Your task to perform on an android device: Clear all items from cart on costco. Search for "acer predator" on costco, select the first entry, and add it to the cart. Image 0: 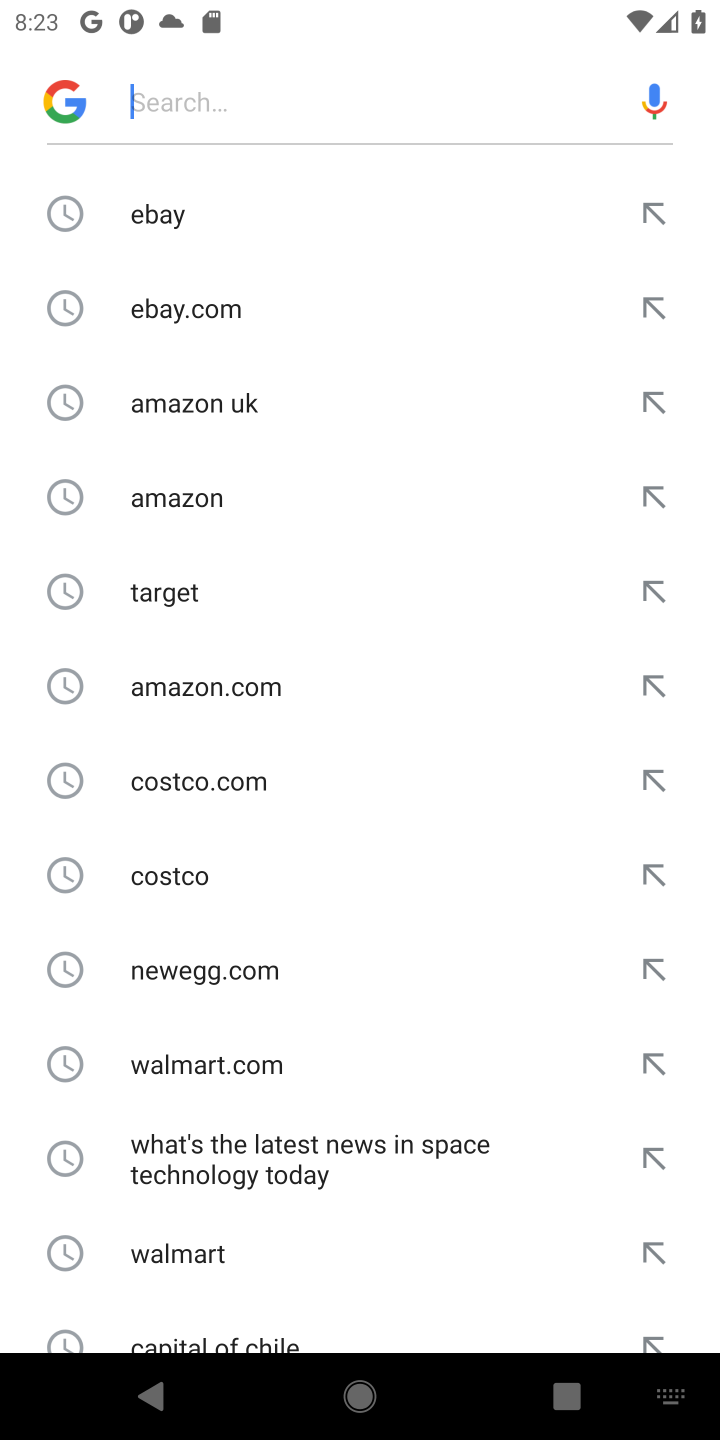
Step 0: type "costco.com"
Your task to perform on an android device: Clear all items from cart on costco. Search for "acer predator" on costco, select the first entry, and add it to the cart. Image 1: 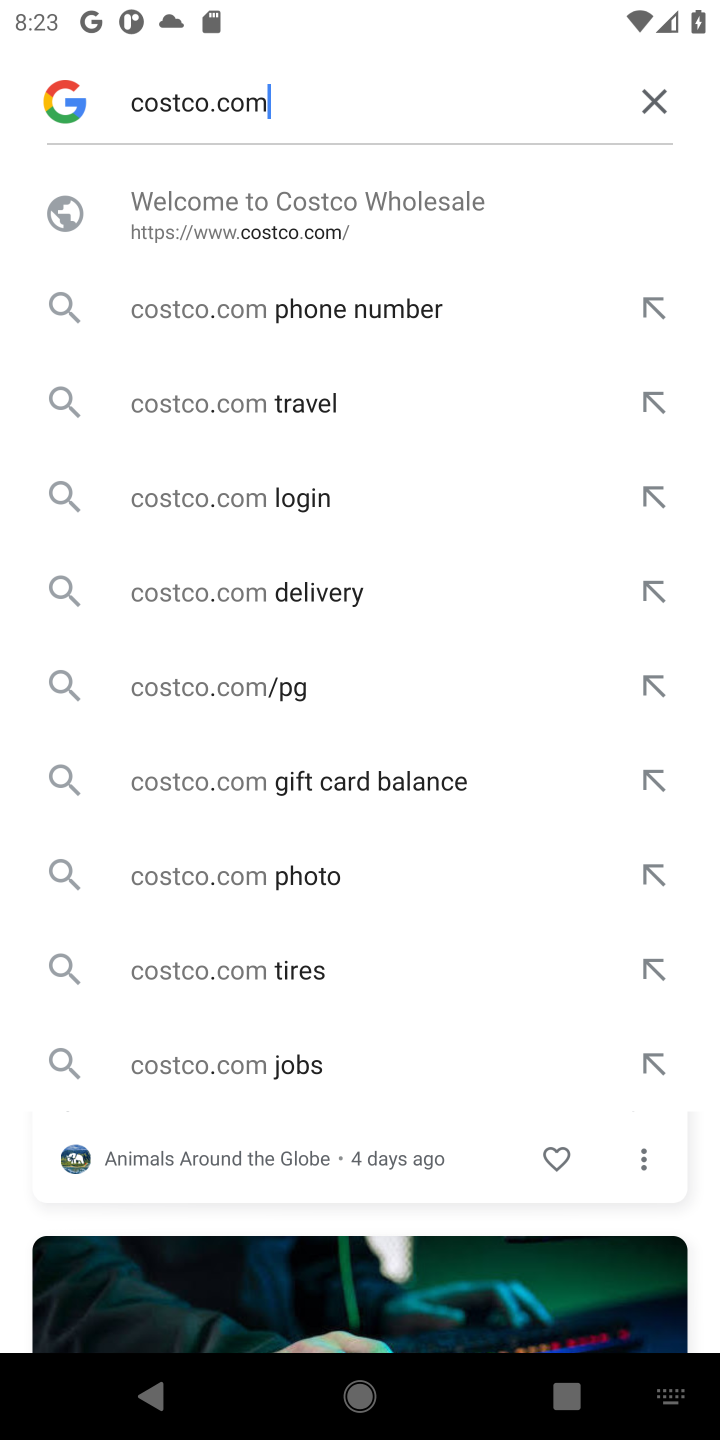
Step 1: click (243, 245)
Your task to perform on an android device: Clear all items from cart on costco. Search for "acer predator" on costco, select the first entry, and add it to the cart. Image 2: 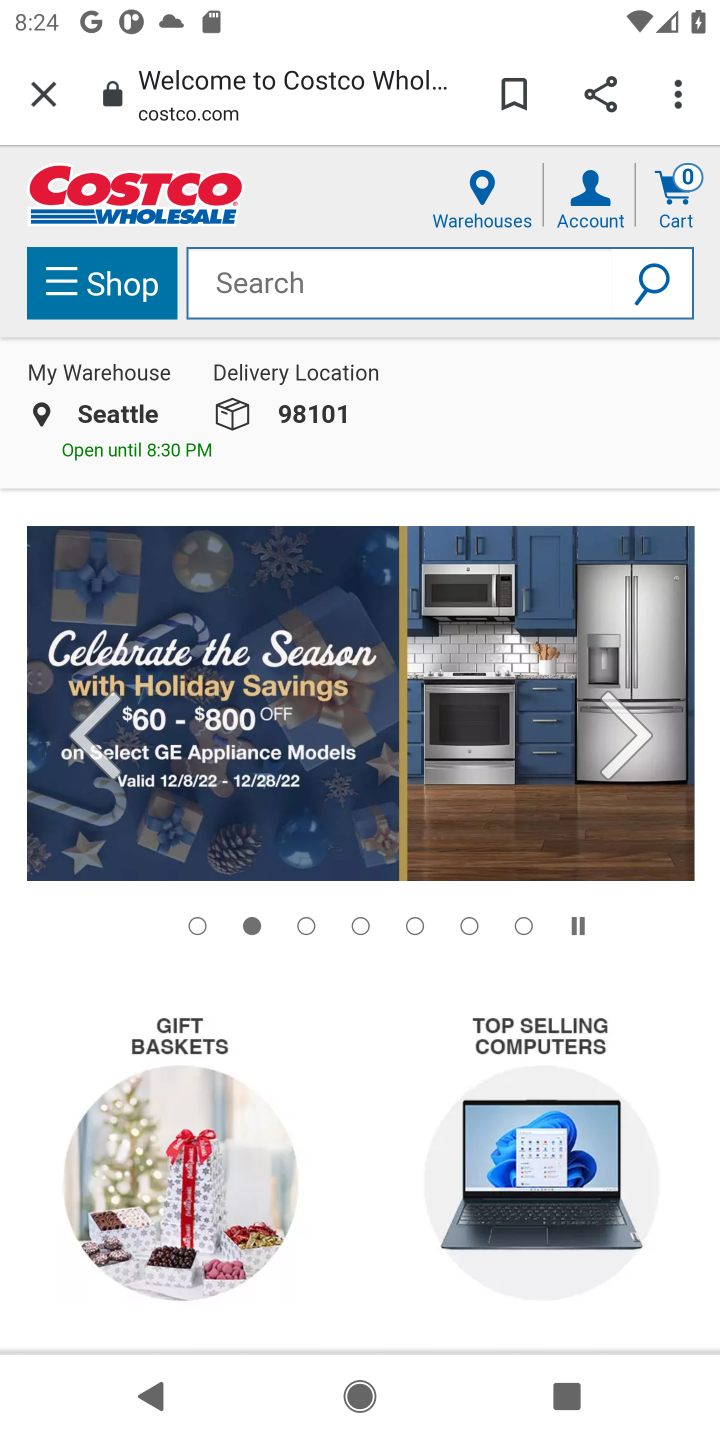
Step 2: click (662, 204)
Your task to perform on an android device: Clear all items from cart on costco. Search for "acer predator" on costco, select the first entry, and add it to the cart. Image 3: 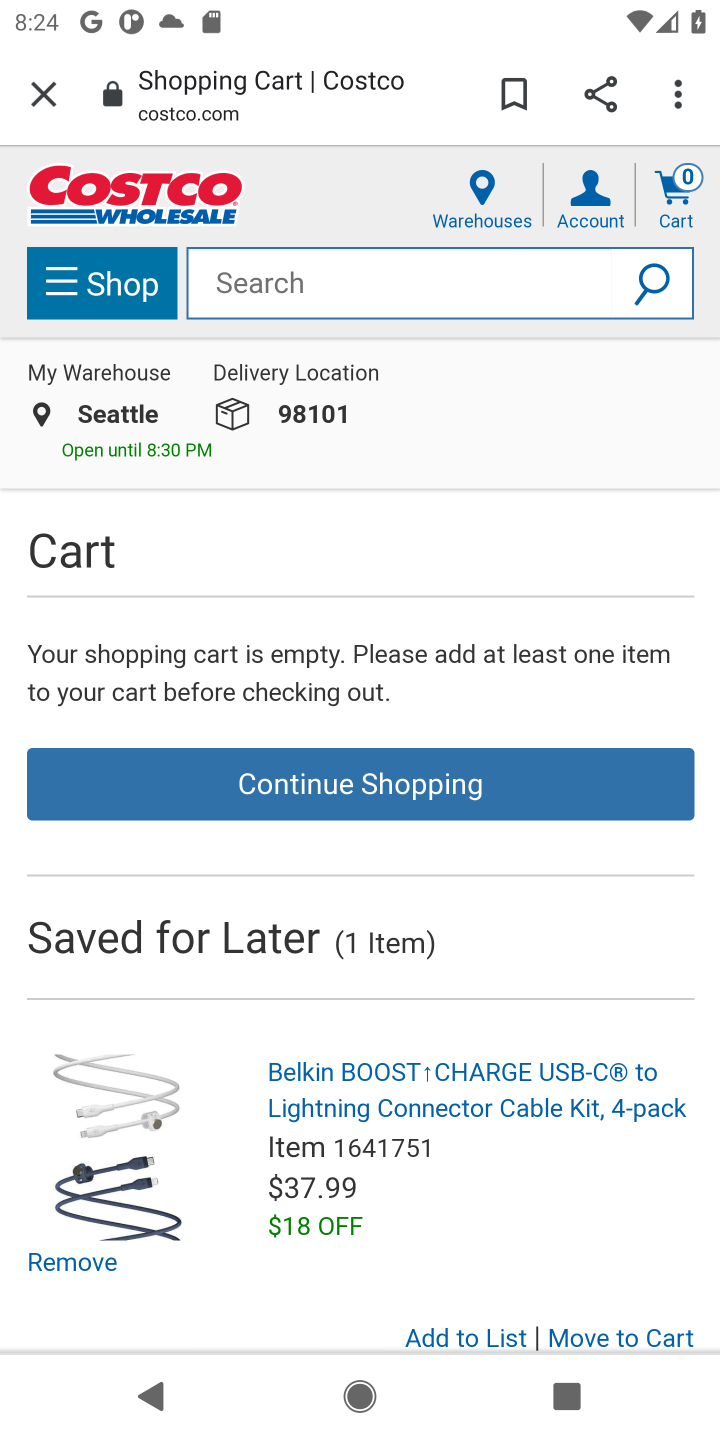
Step 3: click (271, 291)
Your task to perform on an android device: Clear all items from cart on costco. Search for "acer predator" on costco, select the first entry, and add it to the cart. Image 4: 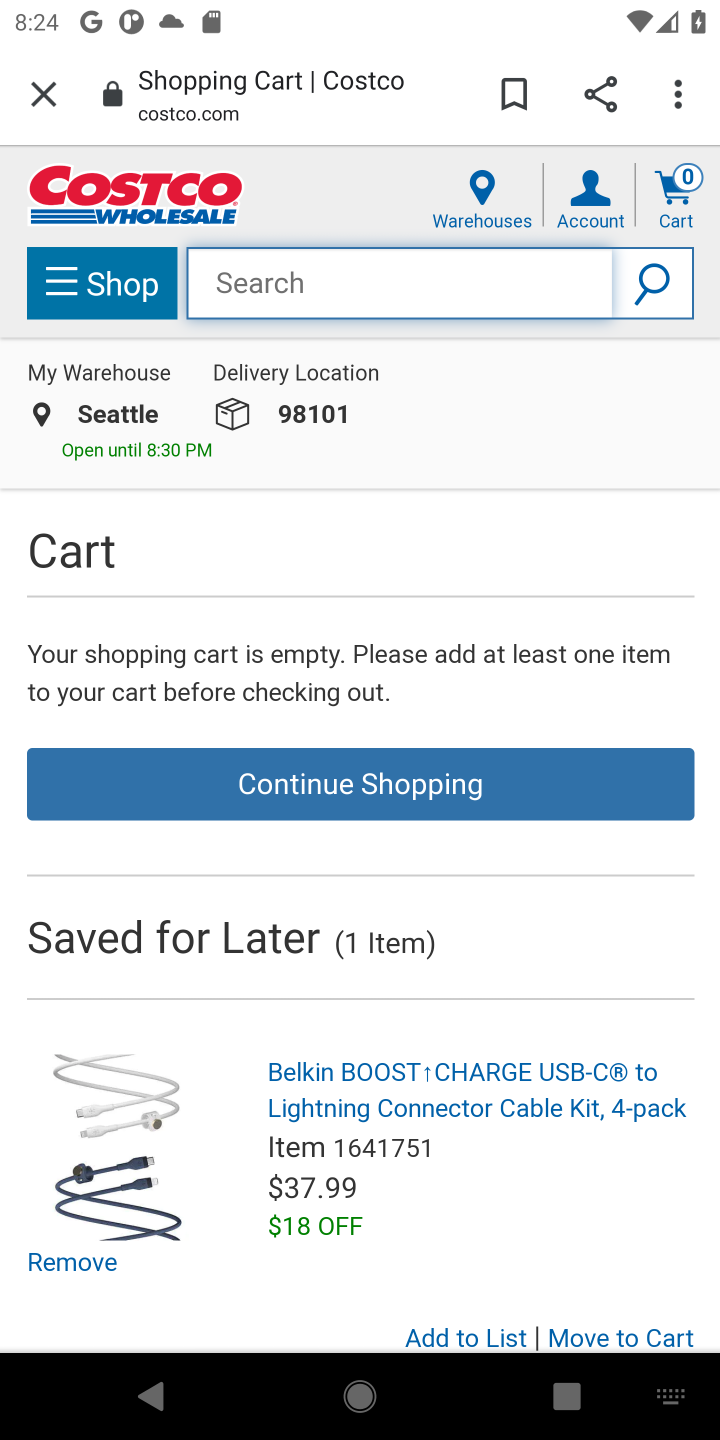
Step 4: type "acer predator"
Your task to perform on an android device: Clear all items from cart on costco. Search for "acer predator" on costco, select the first entry, and add it to the cart. Image 5: 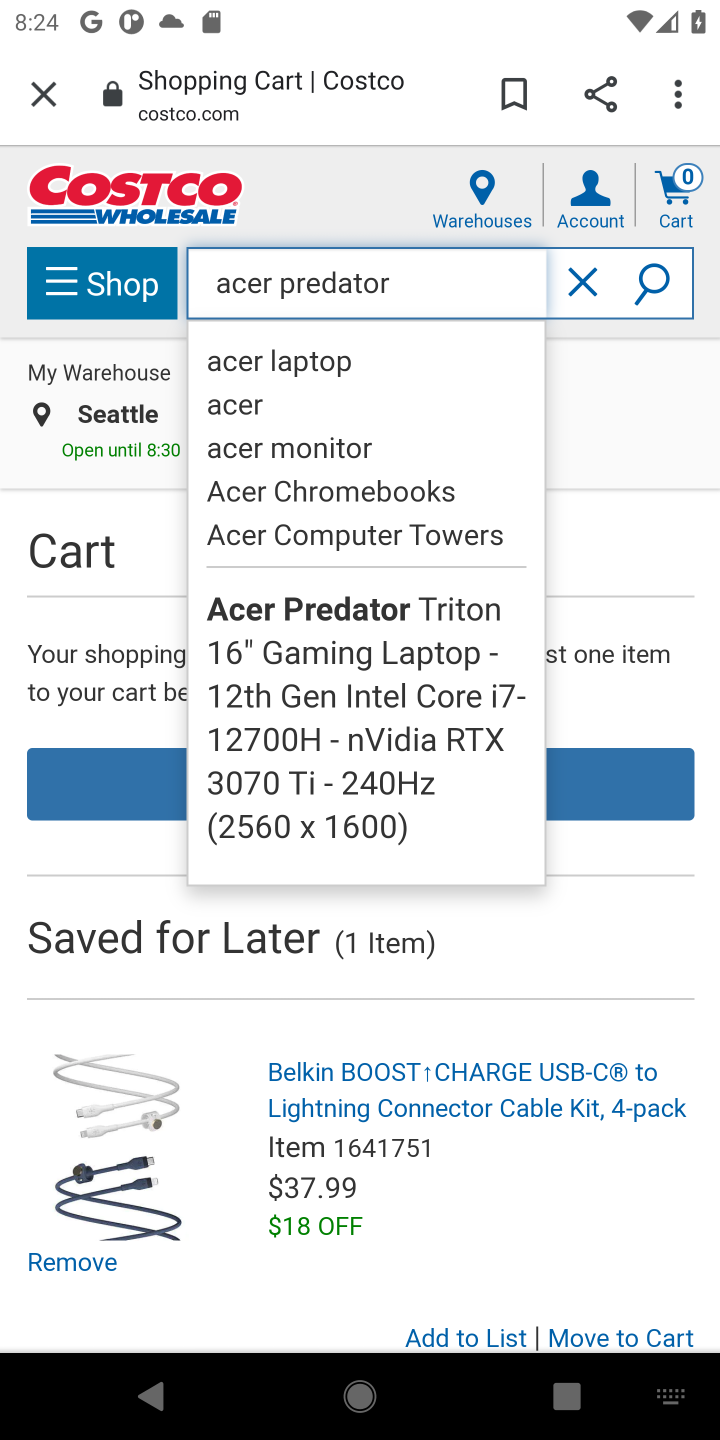
Step 5: click (661, 283)
Your task to perform on an android device: Clear all items from cart on costco. Search for "acer predator" on costco, select the first entry, and add it to the cart. Image 6: 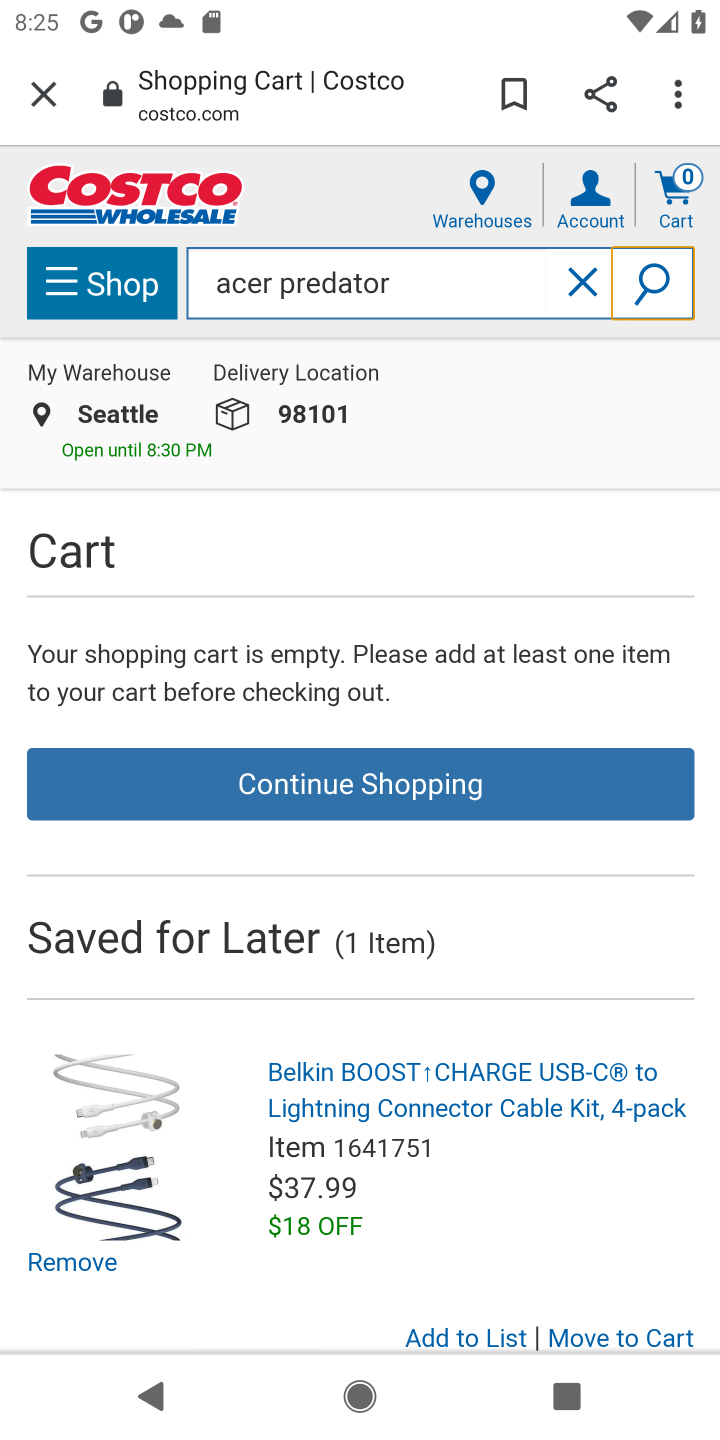
Step 6: drag from (466, 962) to (528, 581)
Your task to perform on an android device: Clear all items from cart on costco. Search for "acer predator" on costco, select the first entry, and add it to the cart. Image 7: 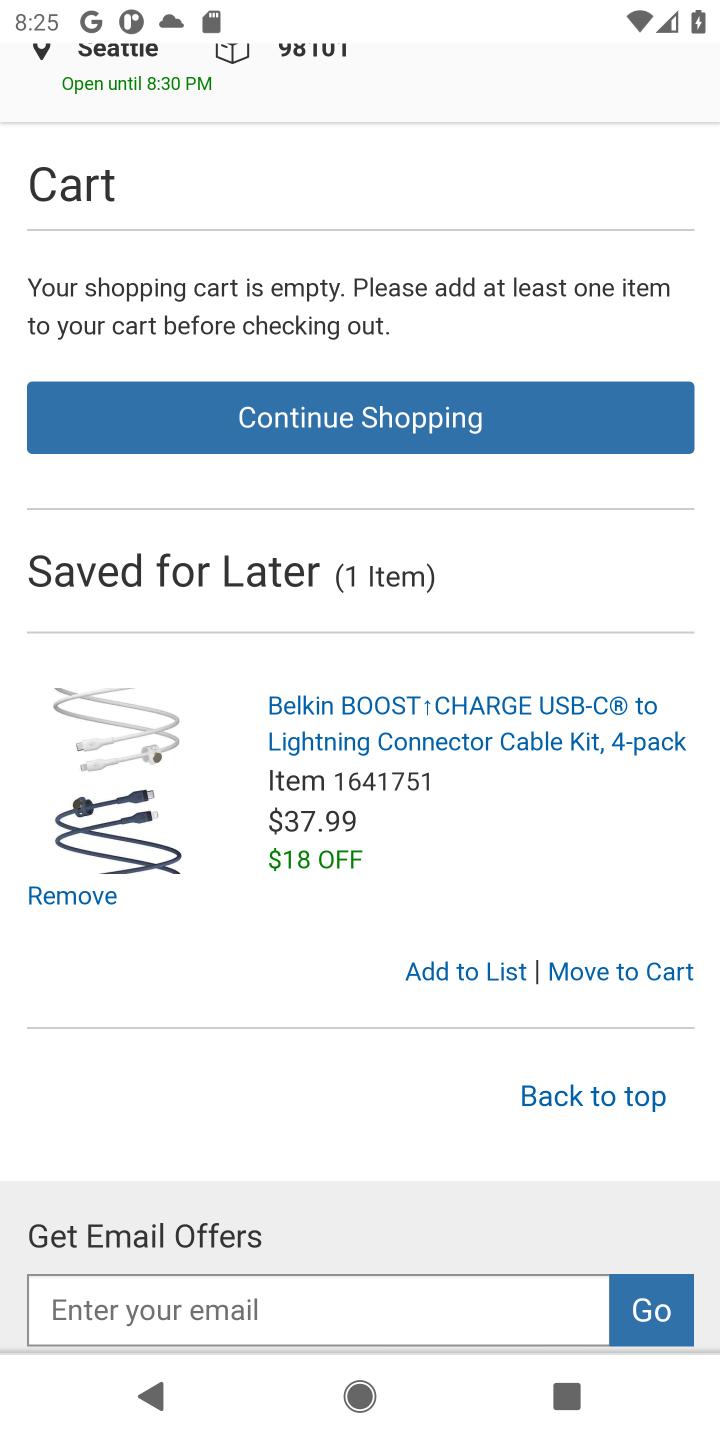
Step 7: drag from (461, 731) to (467, 1125)
Your task to perform on an android device: Clear all items from cart on costco. Search for "acer predator" on costco, select the first entry, and add it to the cart. Image 8: 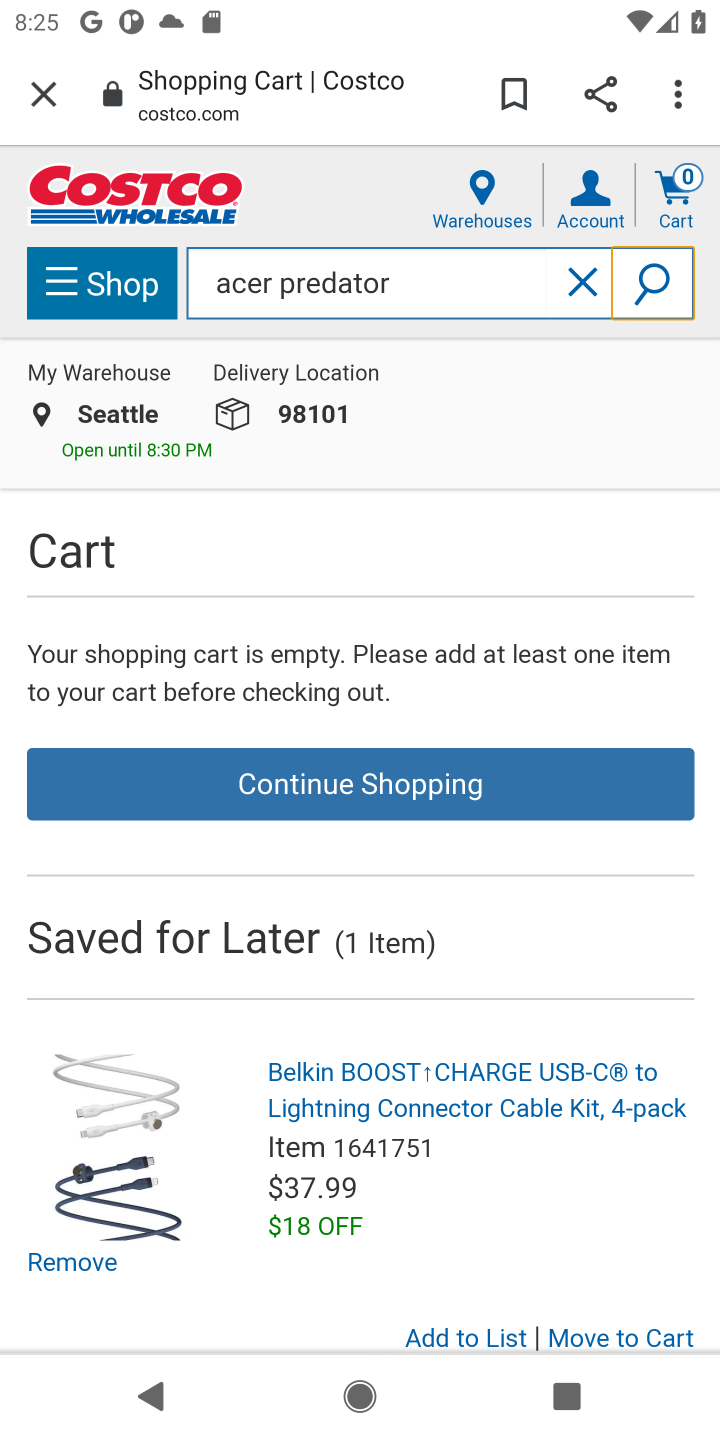
Step 8: click (646, 292)
Your task to perform on an android device: Clear all items from cart on costco. Search for "acer predator" on costco, select the first entry, and add it to the cart. Image 9: 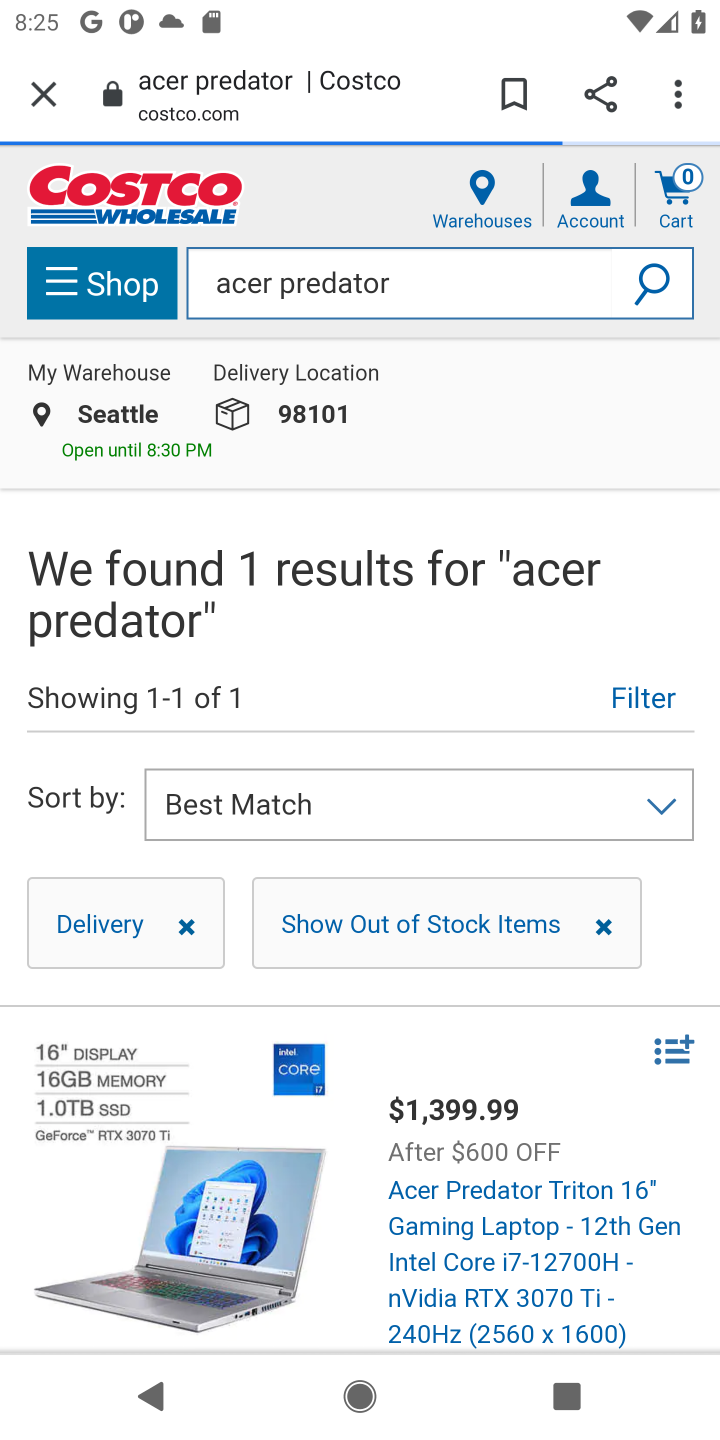
Step 9: drag from (370, 1155) to (337, 686)
Your task to perform on an android device: Clear all items from cart on costco. Search for "acer predator" on costco, select the first entry, and add it to the cart. Image 10: 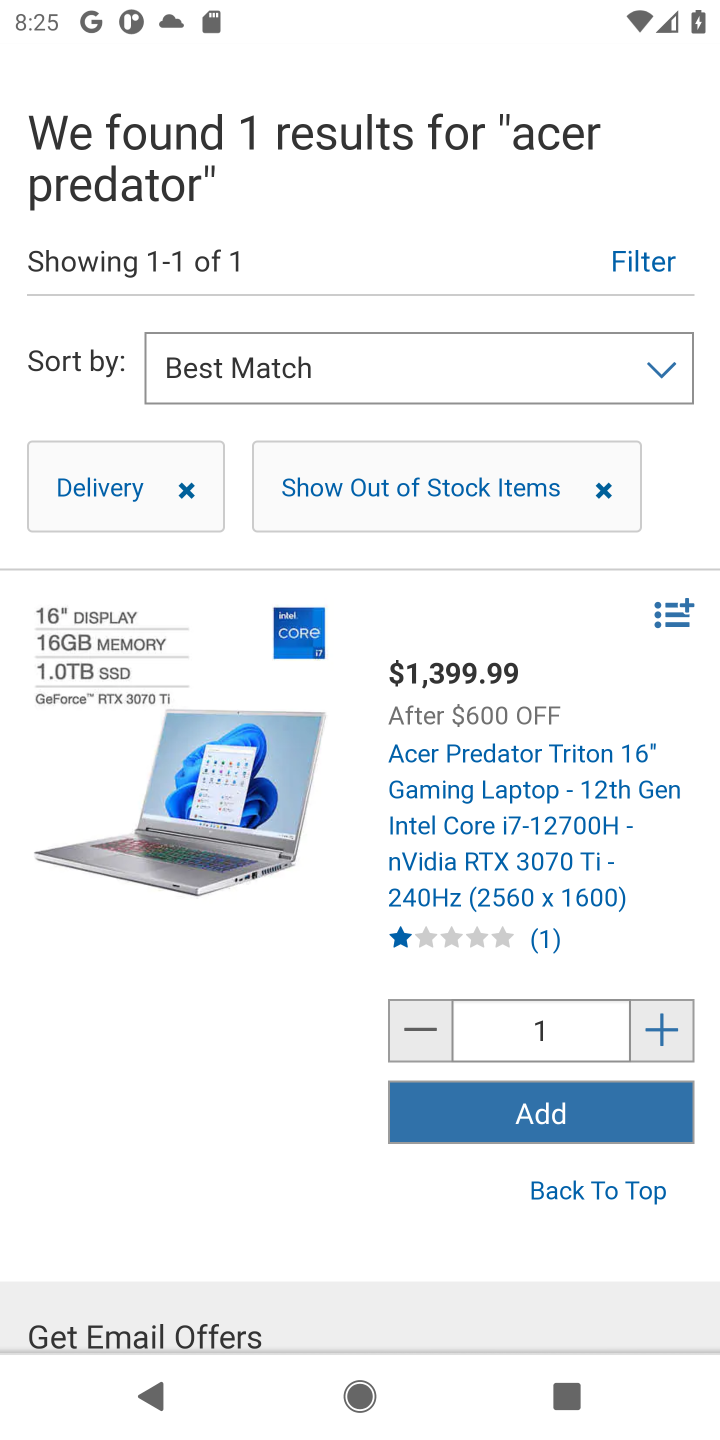
Step 10: click (477, 1105)
Your task to perform on an android device: Clear all items from cart on costco. Search for "acer predator" on costco, select the first entry, and add it to the cart. Image 11: 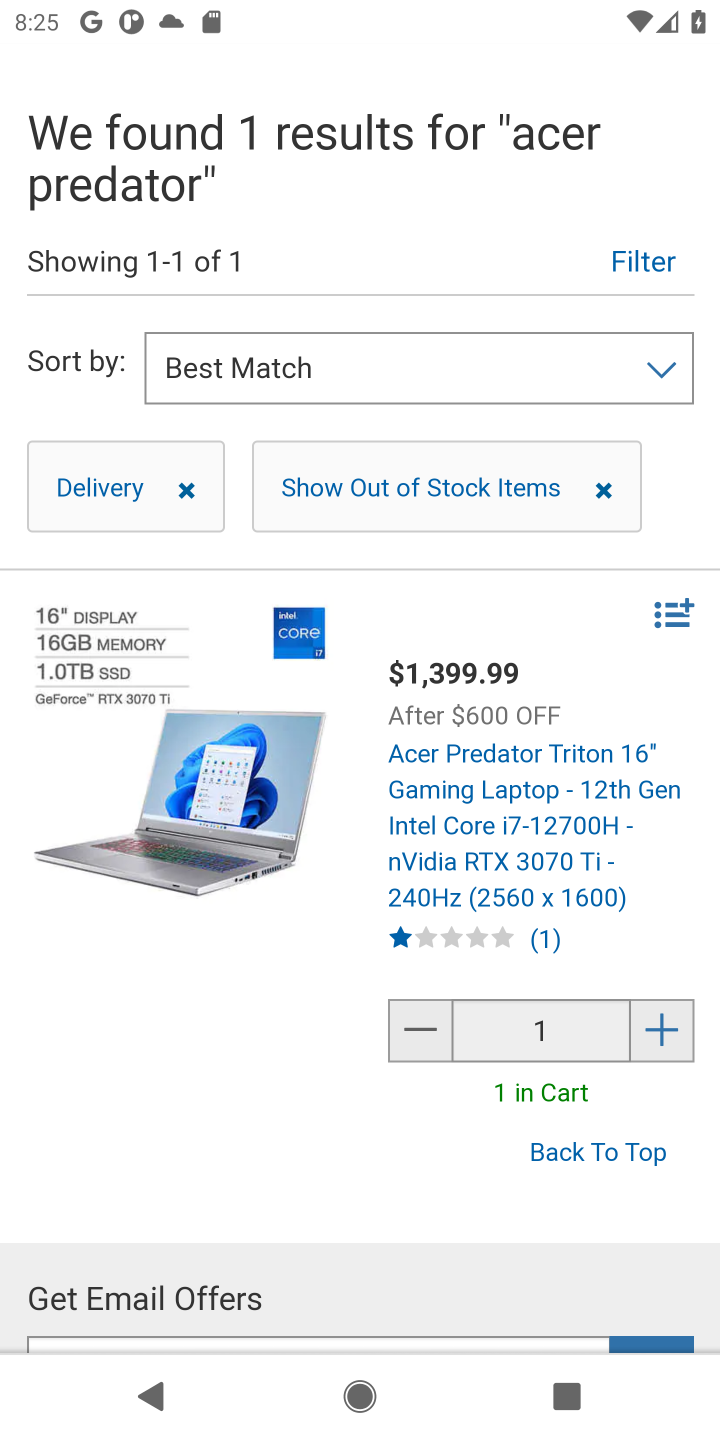
Step 11: task complete